Your task to perform on an android device: Open the Play Movies app and select the watchlist tab. Image 0: 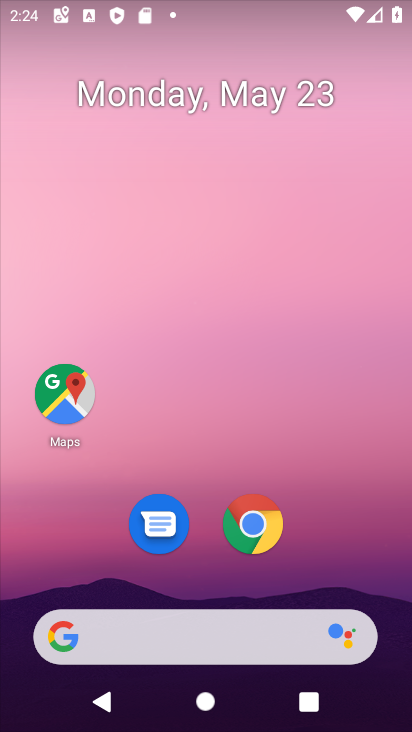
Step 0: drag from (324, 486) to (339, 5)
Your task to perform on an android device: Open the Play Movies app and select the watchlist tab. Image 1: 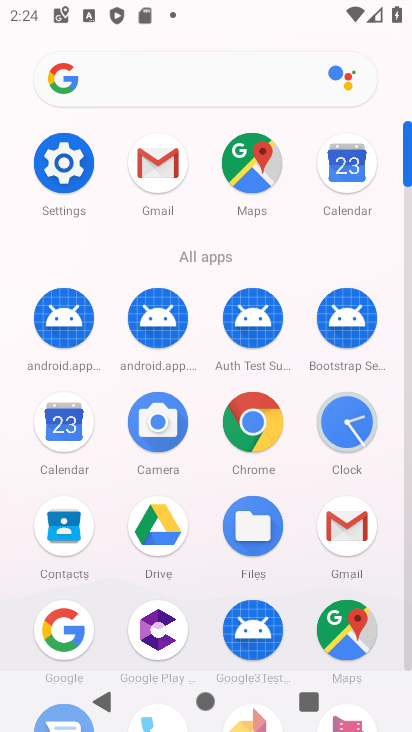
Step 1: drag from (303, 526) to (316, 214)
Your task to perform on an android device: Open the Play Movies app and select the watchlist tab. Image 2: 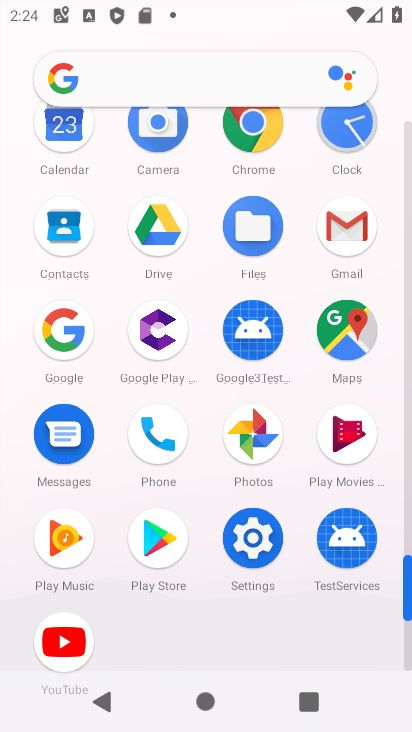
Step 2: click (344, 435)
Your task to perform on an android device: Open the Play Movies app and select the watchlist tab. Image 3: 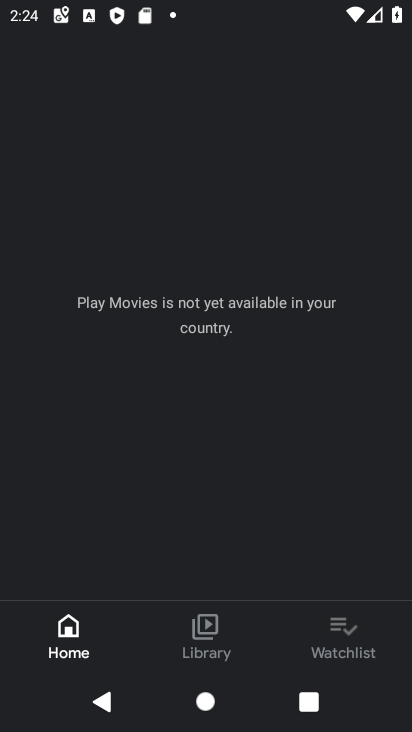
Step 3: click (353, 645)
Your task to perform on an android device: Open the Play Movies app and select the watchlist tab. Image 4: 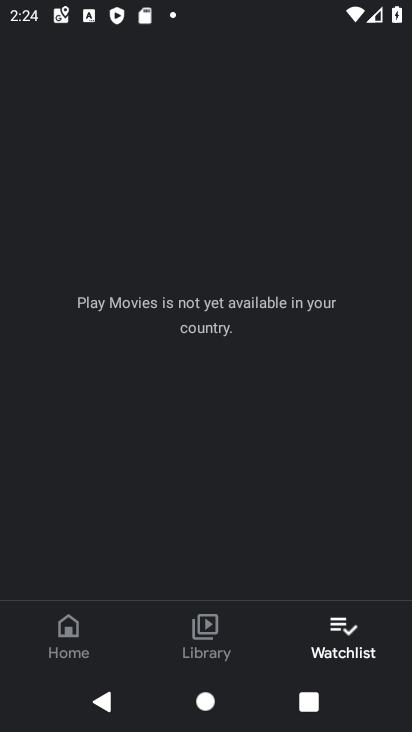
Step 4: task complete